Your task to perform on an android device: Open Google Maps and go to "Timeline" Image 0: 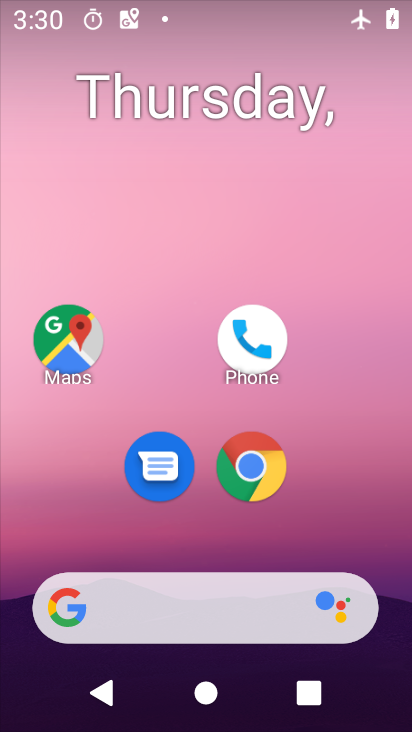
Step 0: drag from (199, 547) to (201, 218)
Your task to perform on an android device: Open Google Maps and go to "Timeline" Image 1: 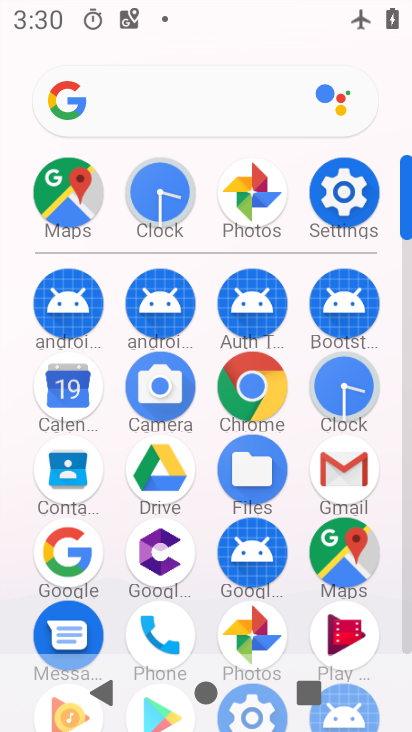
Step 1: click (335, 545)
Your task to perform on an android device: Open Google Maps and go to "Timeline" Image 2: 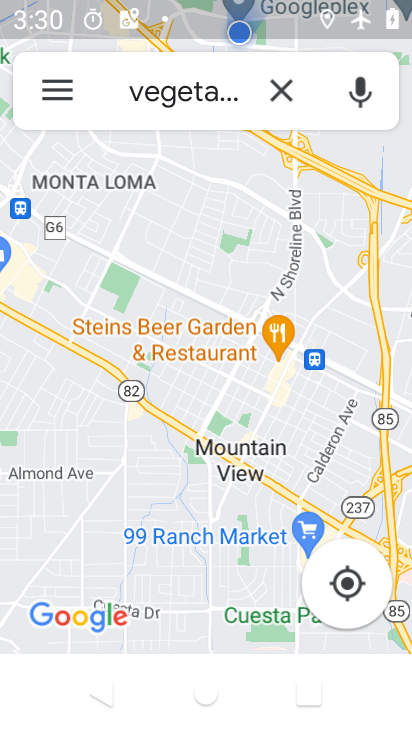
Step 2: click (45, 82)
Your task to perform on an android device: Open Google Maps and go to "Timeline" Image 3: 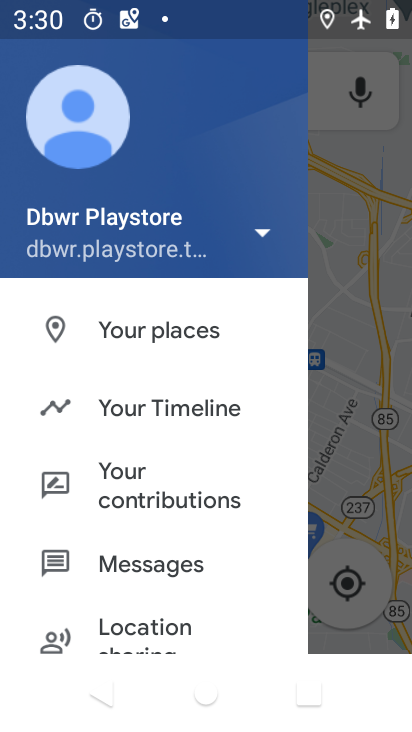
Step 3: click (136, 404)
Your task to perform on an android device: Open Google Maps and go to "Timeline" Image 4: 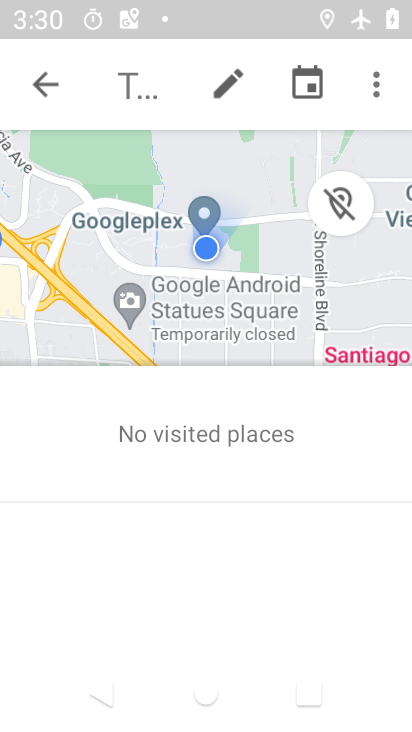
Step 4: task complete